Your task to perform on an android device: clear all cookies in the chrome app Image 0: 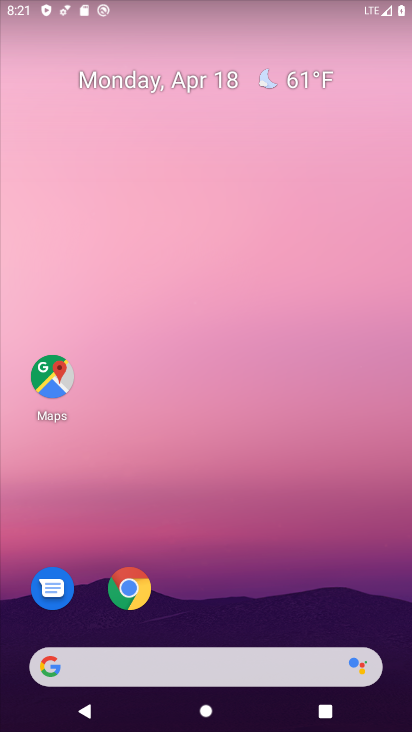
Step 0: click (123, 587)
Your task to perform on an android device: clear all cookies in the chrome app Image 1: 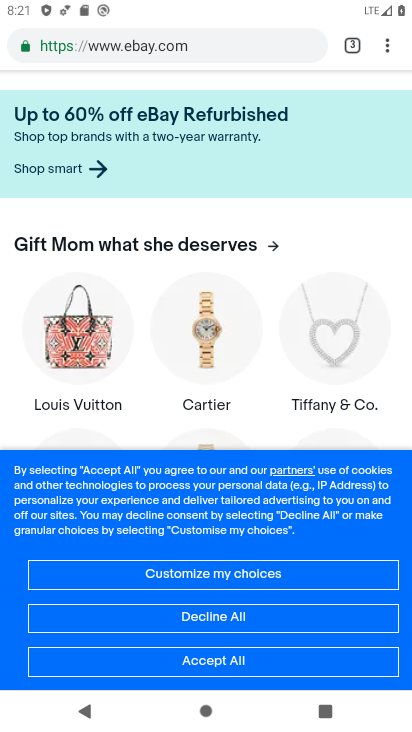
Step 1: click (384, 44)
Your task to perform on an android device: clear all cookies in the chrome app Image 2: 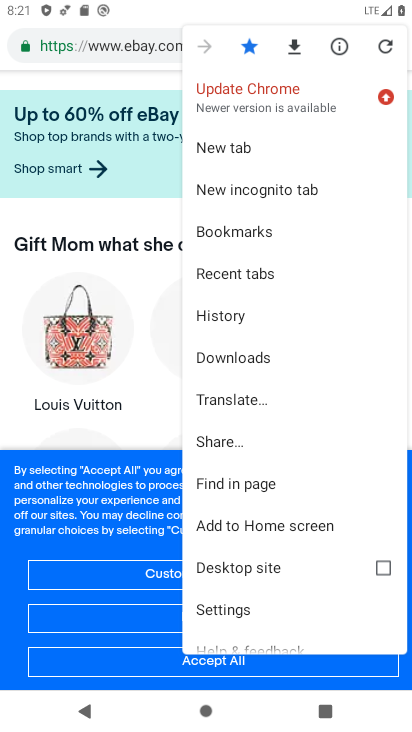
Step 2: click (216, 308)
Your task to perform on an android device: clear all cookies in the chrome app Image 3: 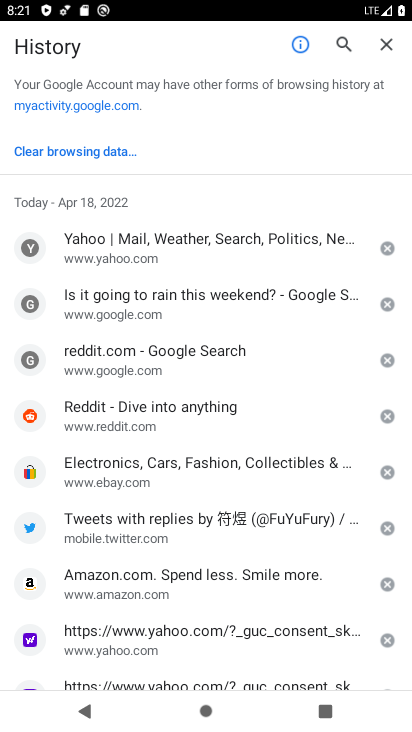
Step 3: click (59, 154)
Your task to perform on an android device: clear all cookies in the chrome app Image 4: 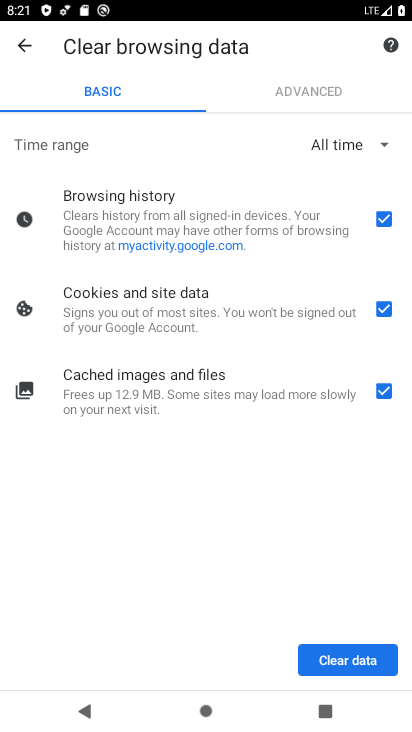
Step 4: click (377, 218)
Your task to perform on an android device: clear all cookies in the chrome app Image 5: 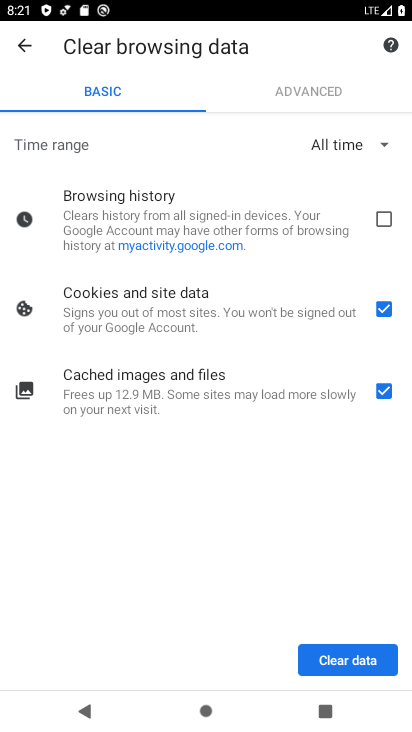
Step 5: click (383, 398)
Your task to perform on an android device: clear all cookies in the chrome app Image 6: 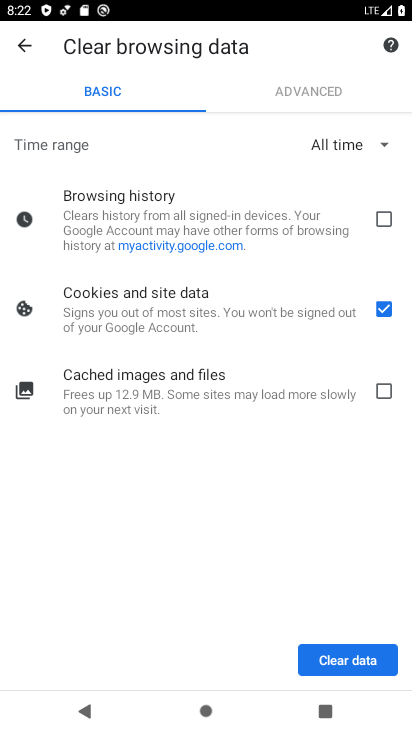
Step 6: click (352, 656)
Your task to perform on an android device: clear all cookies in the chrome app Image 7: 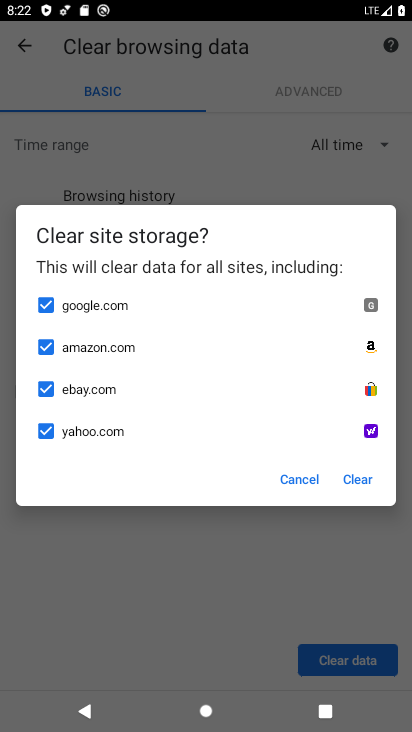
Step 7: click (353, 481)
Your task to perform on an android device: clear all cookies in the chrome app Image 8: 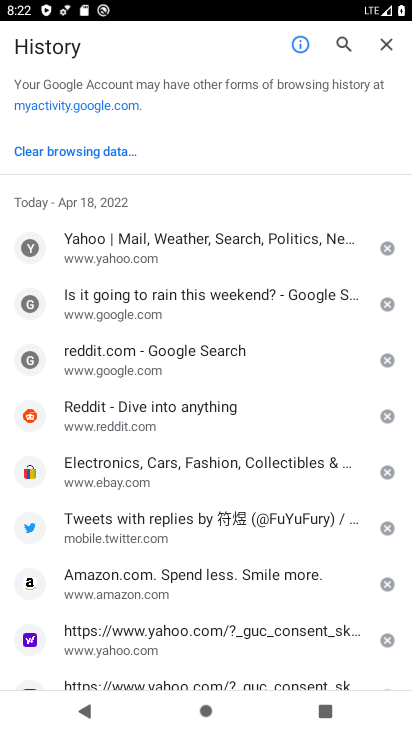
Step 8: task complete